Your task to perform on an android device: turn off picture-in-picture Image 0: 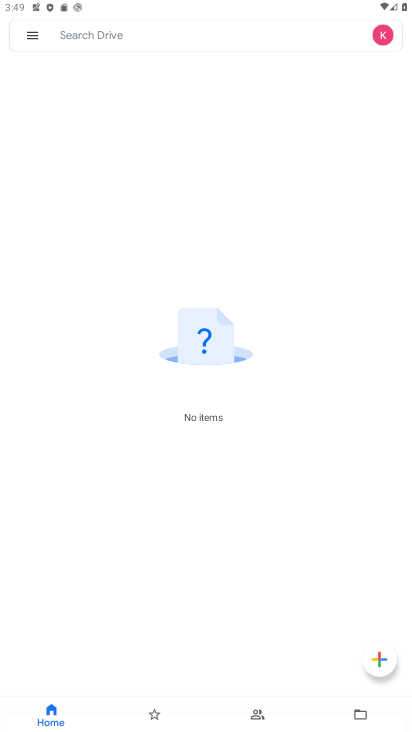
Step 0: press home button
Your task to perform on an android device: turn off picture-in-picture Image 1: 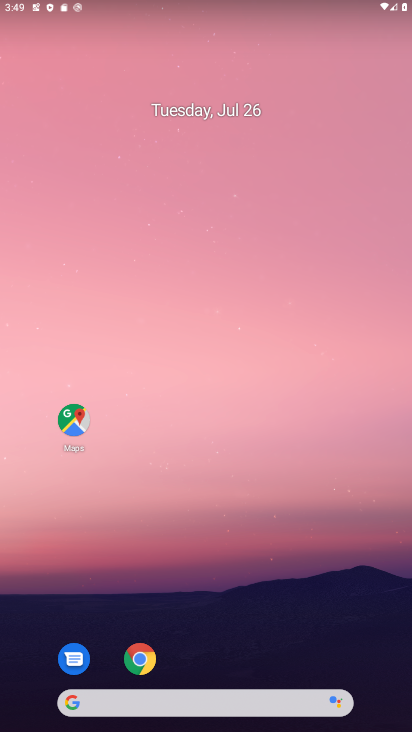
Step 1: click (143, 658)
Your task to perform on an android device: turn off picture-in-picture Image 2: 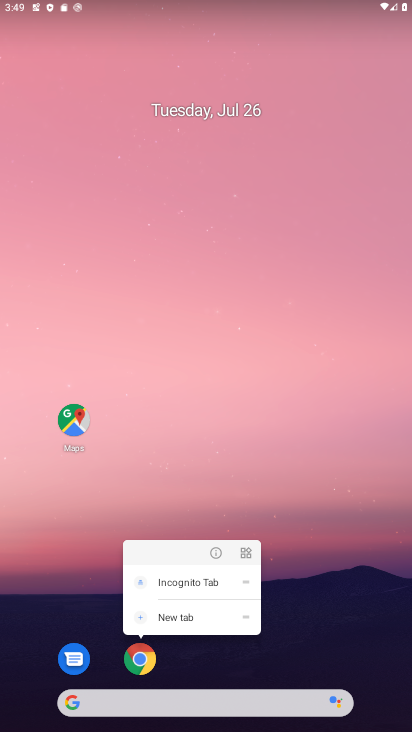
Step 2: click (217, 548)
Your task to perform on an android device: turn off picture-in-picture Image 3: 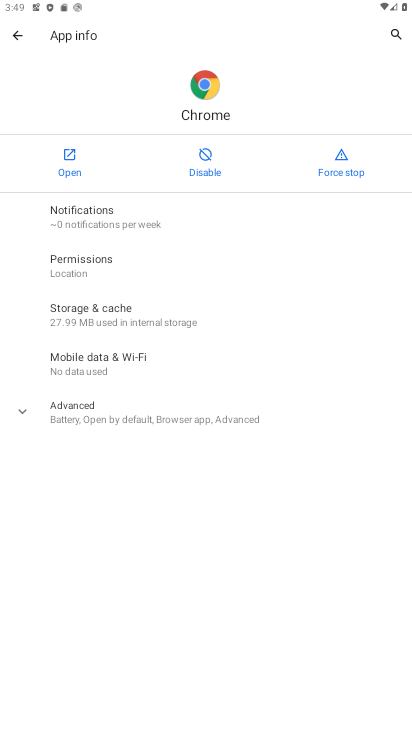
Step 3: click (90, 421)
Your task to perform on an android device: turn off picture-in-picture Image 4: 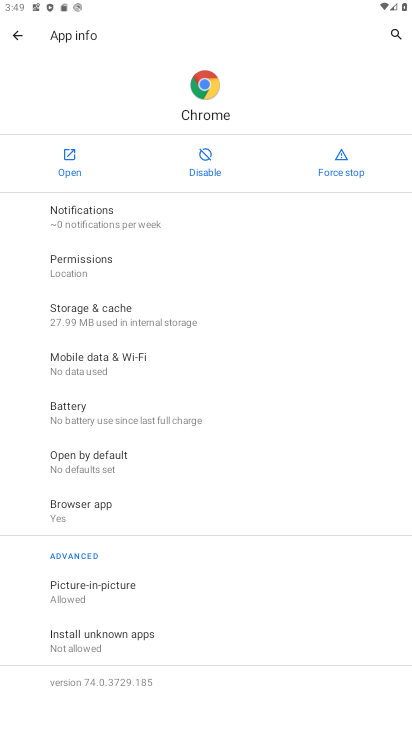
Step 4: click (147, 585)
Your task to perform on an android device: turn off picture-in-picture Image 5: 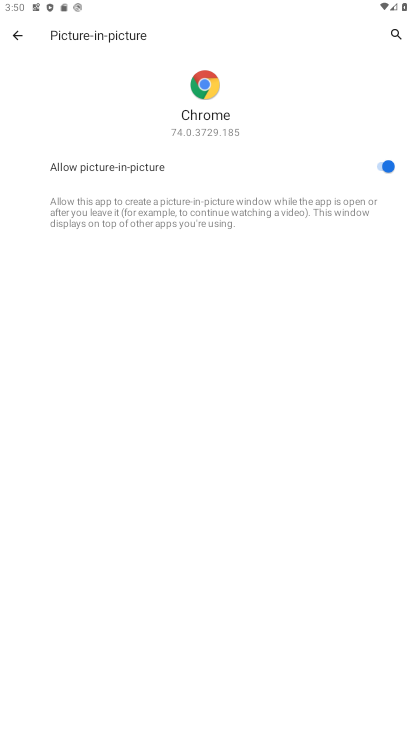
Step 5: click (376, 171)
Your task to perform on an android device: turn off picture-in-picture Image 6: 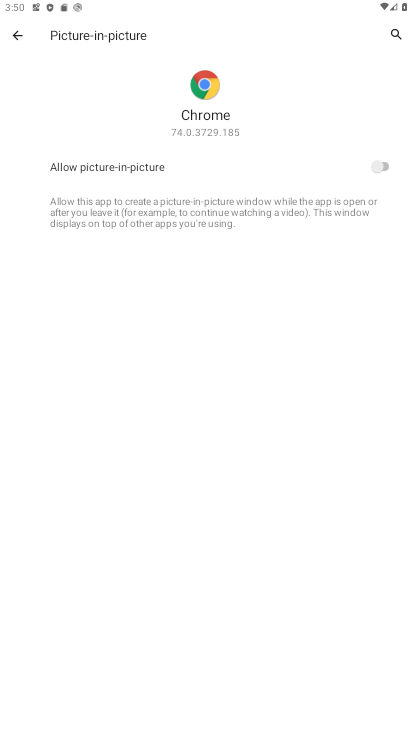
Step 6: task complete